Your task to perform on an android device: turn on priority inbox in the gmail app Image 0: 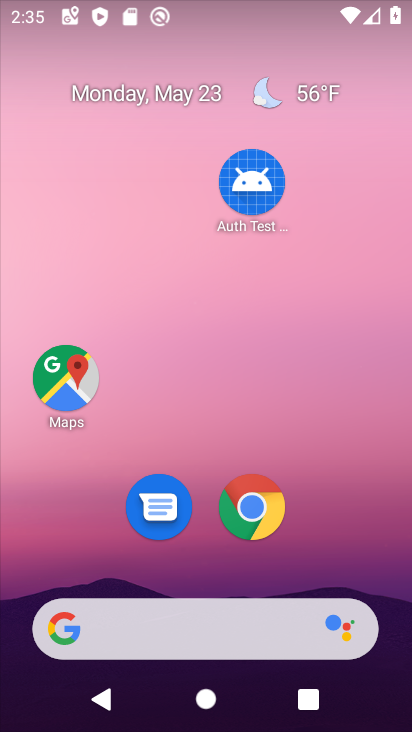
Step 0: click (161, 89)
Your task to perform on an android device: turn on priority inbox in the gmail app Image 1: 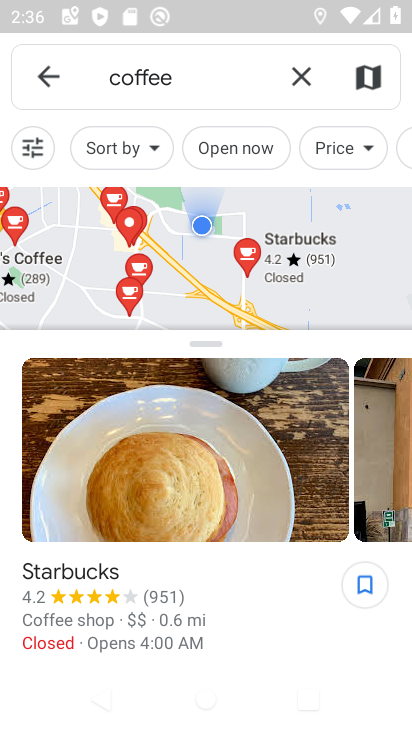
Step 1: click (39, 70)
Your task to perform on an android device: turn on priority inbox in the gmail app Image 2: 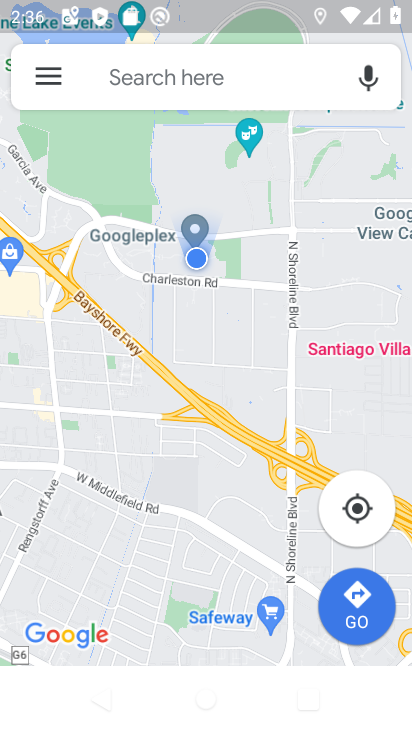
Step 2: press back button
Your task to perform on an android device: turn on priority inbox in the gmail app Image 3: 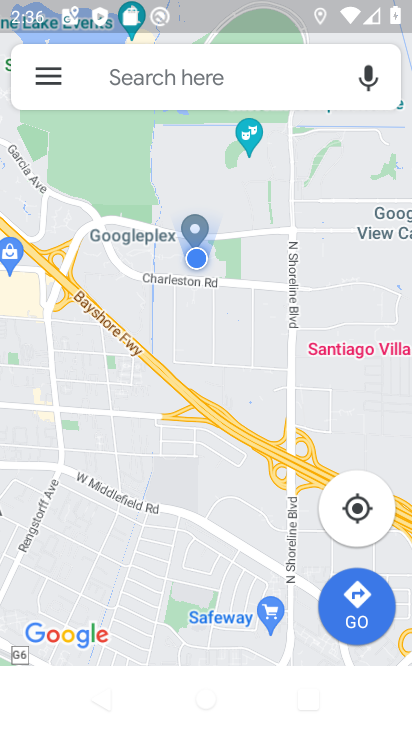
Step 3: press back button
Your task to perform on an android device: turn on priority inbox in the gmail app Image 4: 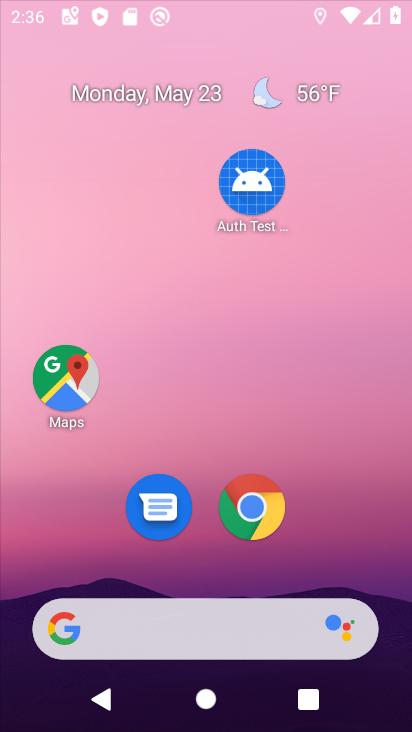
Step 4: press back button
Your task to perform on an android device: turn on priority inbox in the gmail app Image 5: 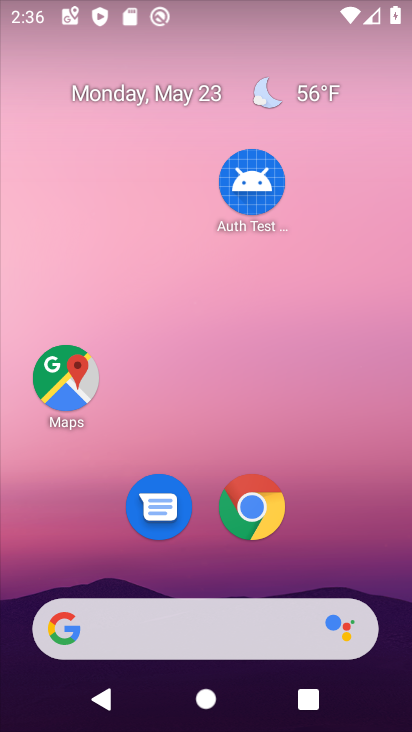
Step 5: press back button
Your task to perform on an android device: turn on priority inbox in the gmail app Image 6: 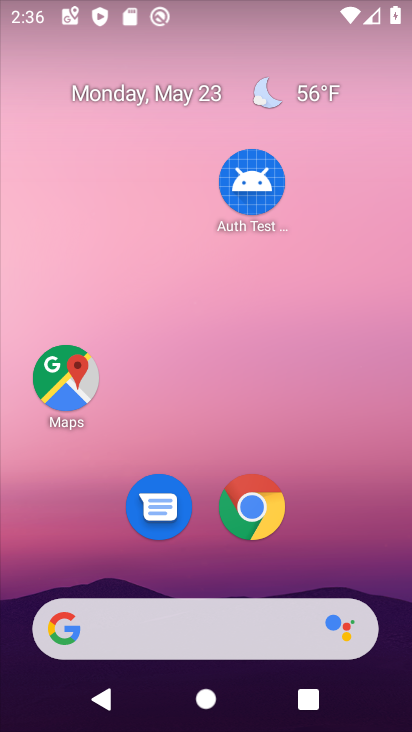
Step 6: drag from (194, 449) to (67, 35)
Your task to perform on an android device: turn on priority inbox in the gmail app Image 7: 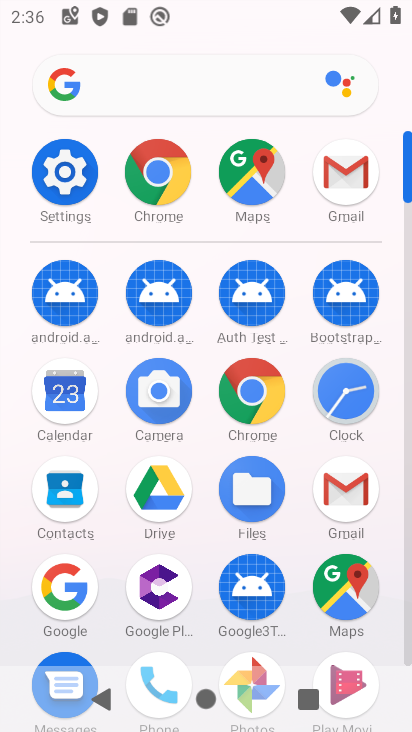
Step 7: click (352, 490)
Your task to perform on an android device: turn on priority inbox in the gmail app Image 8: 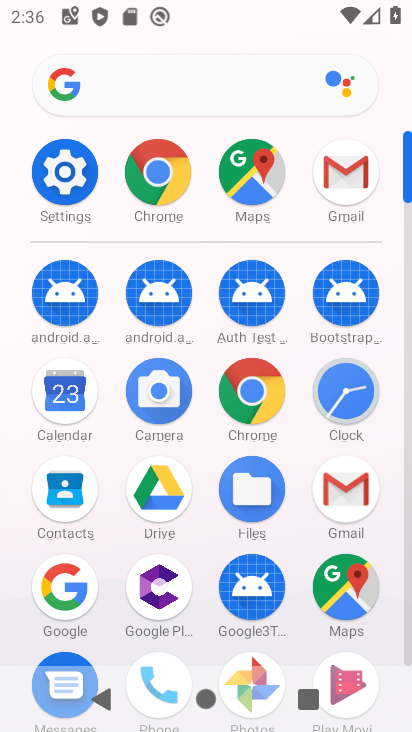
Step 8: click (351, 489)
Your task to perform on an android device: turn on priority inbox in the gmail app Image 9: 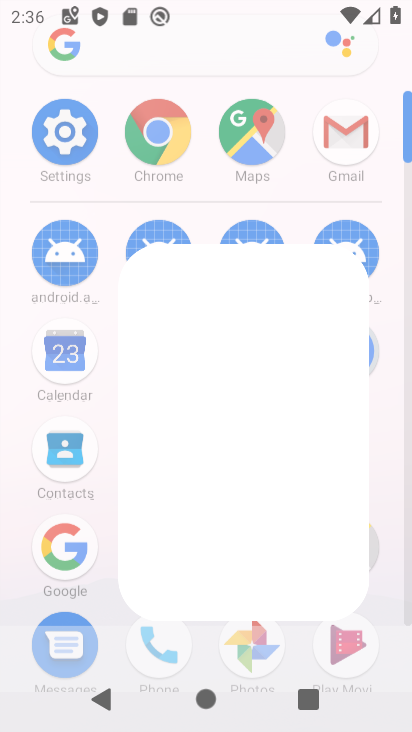
Step 9: click (351, 489)
Your task to perform on an android device: turn on priority inbox in the gmail app Image 10: 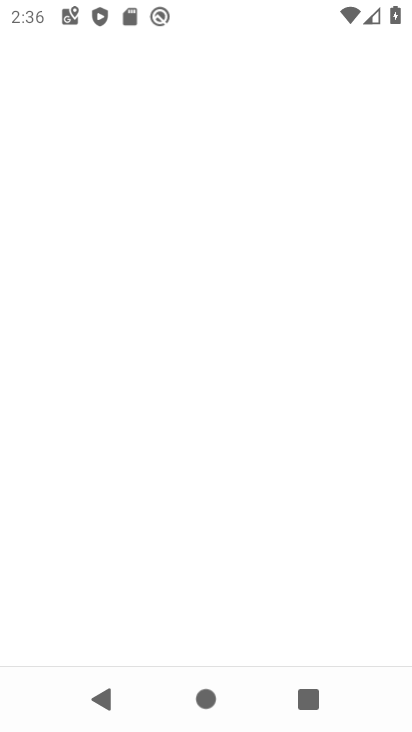
Step 10: click (354, 491)
Your task to perform on an android device: turn on priority inbox in the gmail app Image 11: 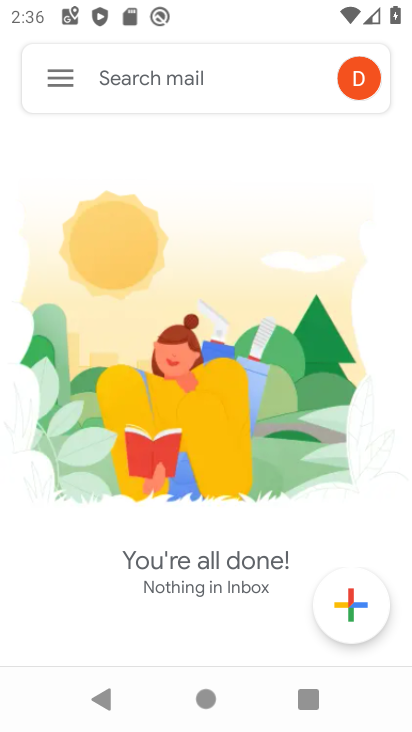
Step 11: click (59, 75)
Your task to perform on an android device: turn on priority inbox in the gmail app Image 12: 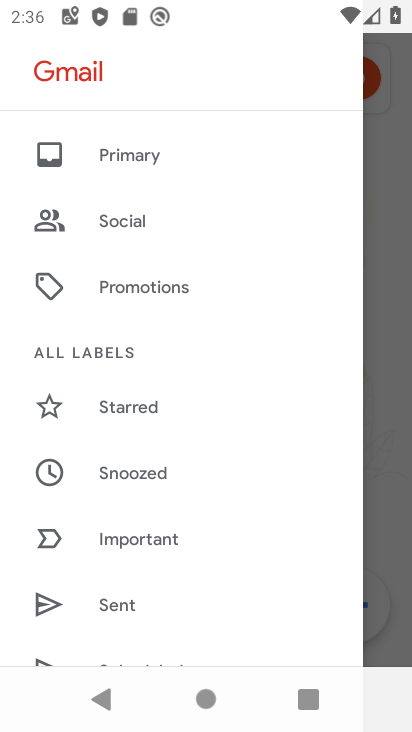
Step 12: drag from (146, 465) to (135, 41)
Your task to perform on an android device: turn on priority inbox in the gmail app Image 13: 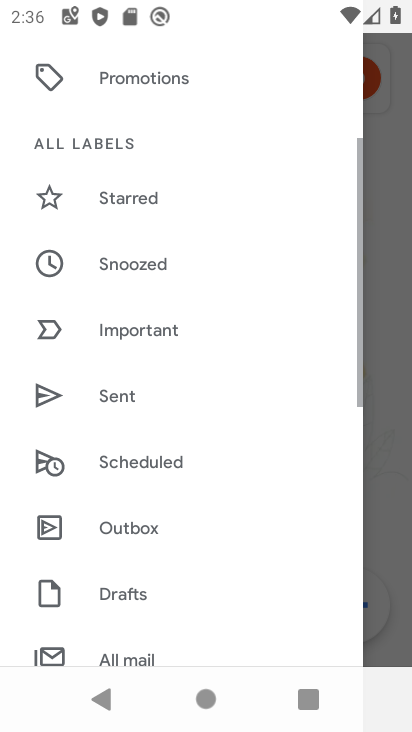
Step 13: drag from (168, 408) to (168, 153)
Your task to perform on an android device: turn on priority inbox in the gmail app Image 14: 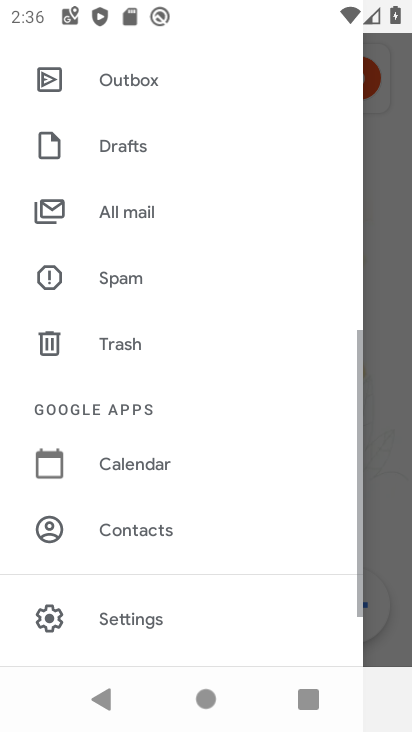
Step 14: drag from (146, 393) to (143, 27)
Your task to perform on an android device: turn on priority inbox in the gmail app Image 15: 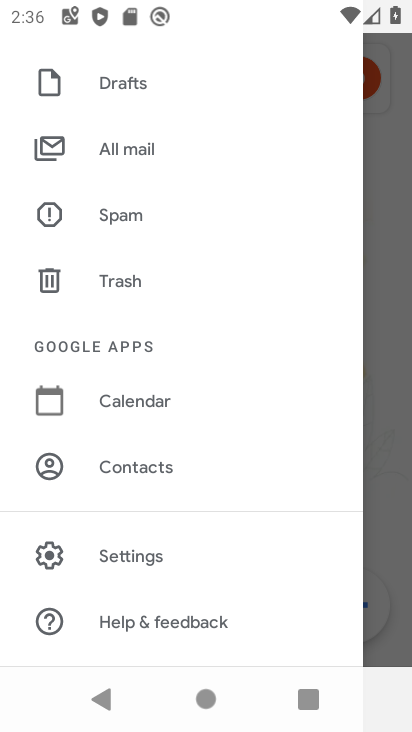
Step 15: click (128, 554)
Your task to perform on an android device: turn on priority inbox in the gmail app Image 16: 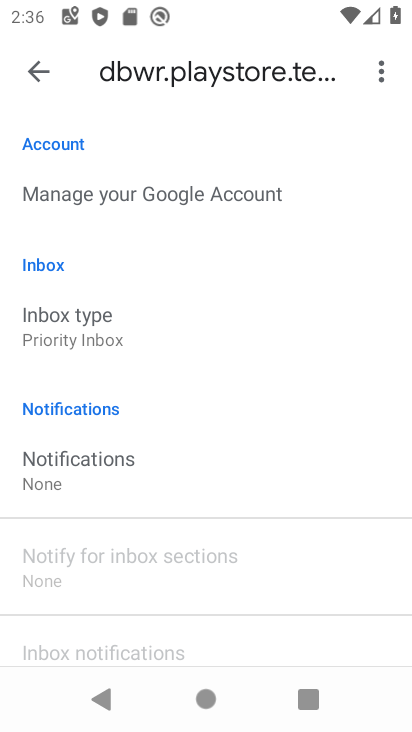
Step 16: drag from (94, 413) to (76, 58)
Your task to perform on an android device: turn on priority inbox in the gmail app Image 17: 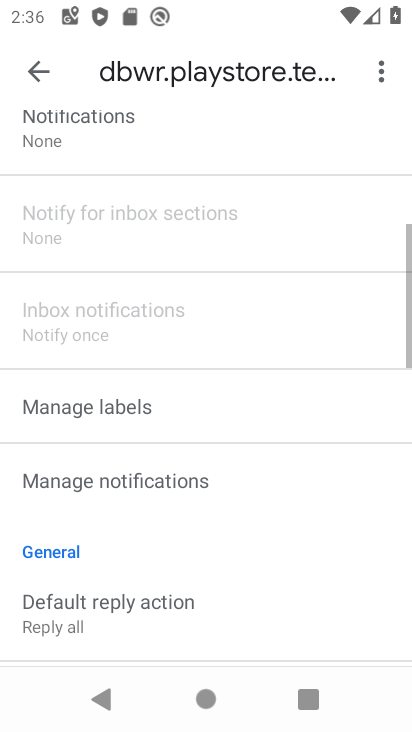
Step 17: drag from (162, 315) to (134, 14)
Your task to perform on an android device: turn on priority inbox in the gmail app Image 18: 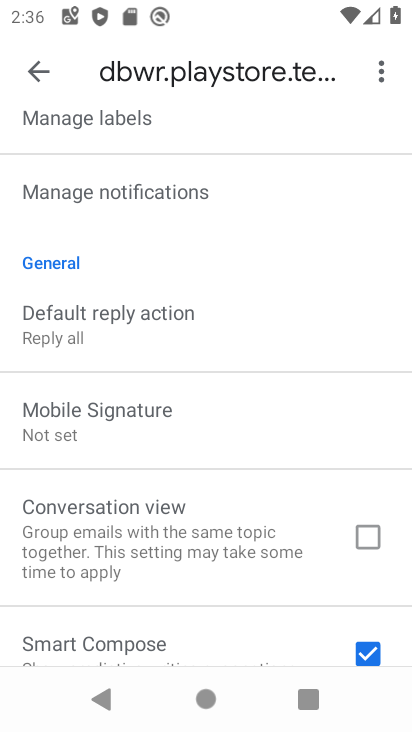
Step 18: drag from (83, 171) to (100, 528)
Your task to perform on an android device: turn on priority inbox in the gmail app Image 19: 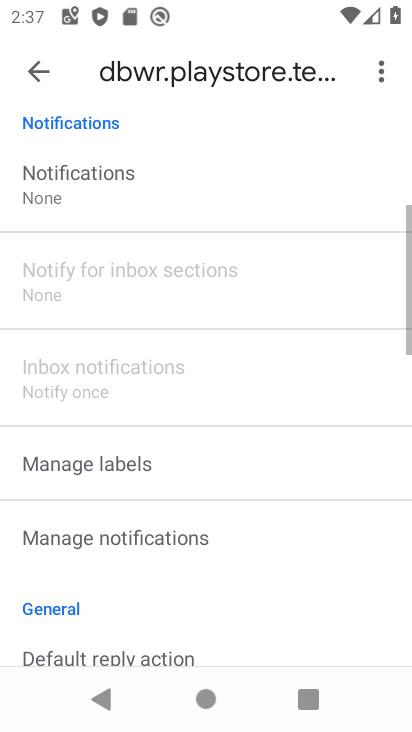
Step 19: drag from (59, 271) to (102, 560)
Your task to perform on an android device: turn on priority inbox in the gmail app Image 20: 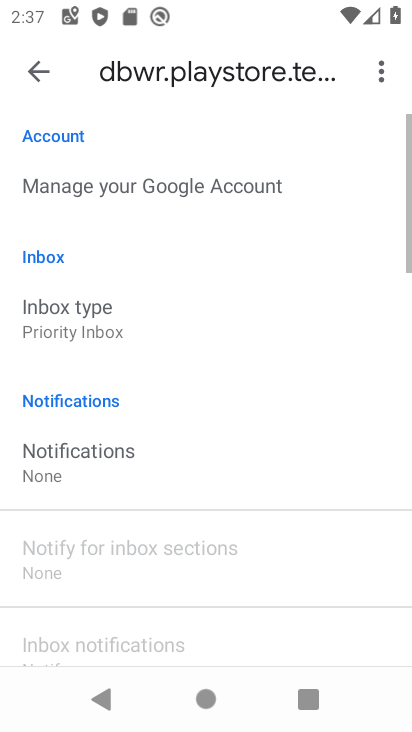
Step 20: click (145, 580)
Your task to perform on an android device: turn on priority inbox in the gmail app Image 21: 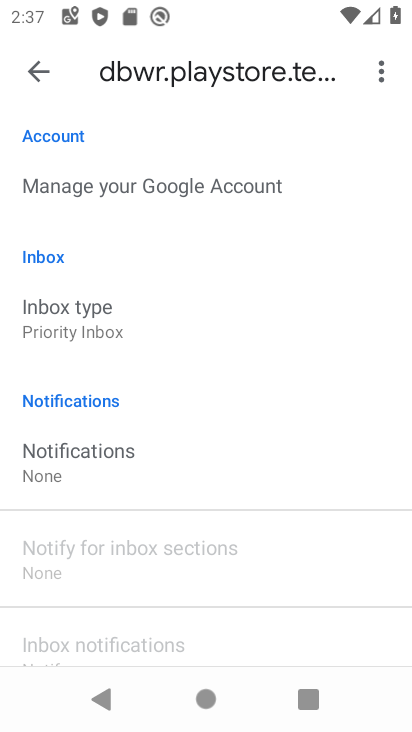
Step 21: task complete